Your task to perform on an android device: open app "Venmo" (install if not already installed), go to login, and select forgot password Image 0: 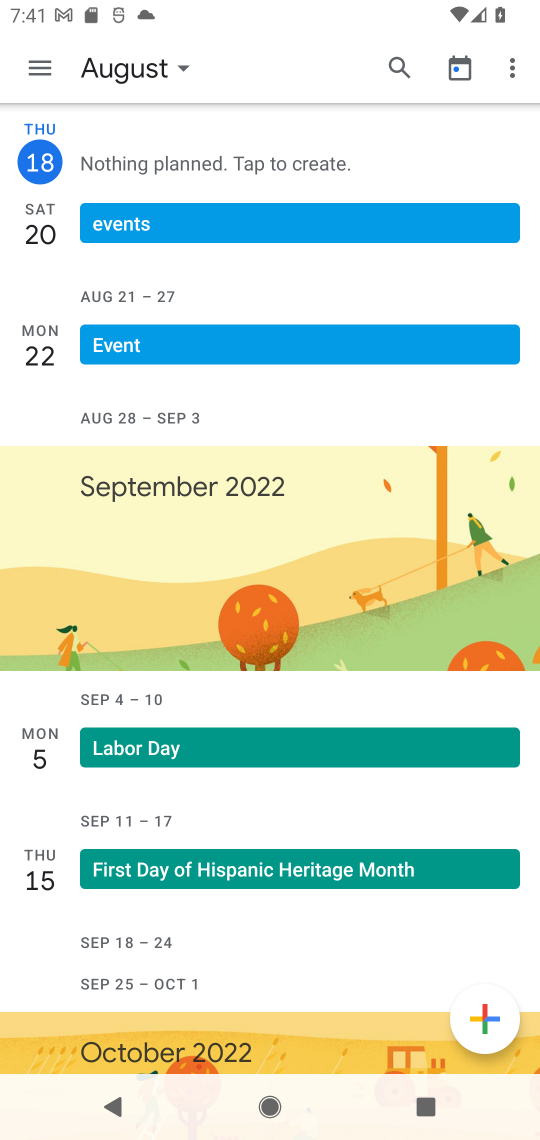
Step 0: press home button
Your task to perform on an android device: open app "Venmo" (install if not already installed), go to login, and select forgot password Image 1: 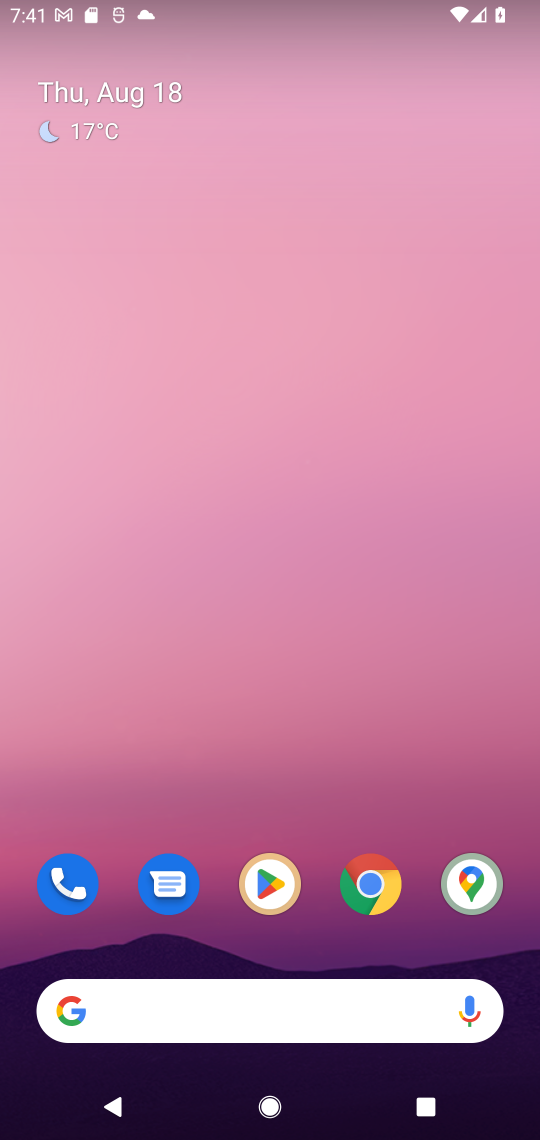
Step 1: drag from (260, 1005) to (368, 201)
Your task to perform on an android device: open app "Venmo" (install if not already installed), go to login, and select forgot password Image 2: 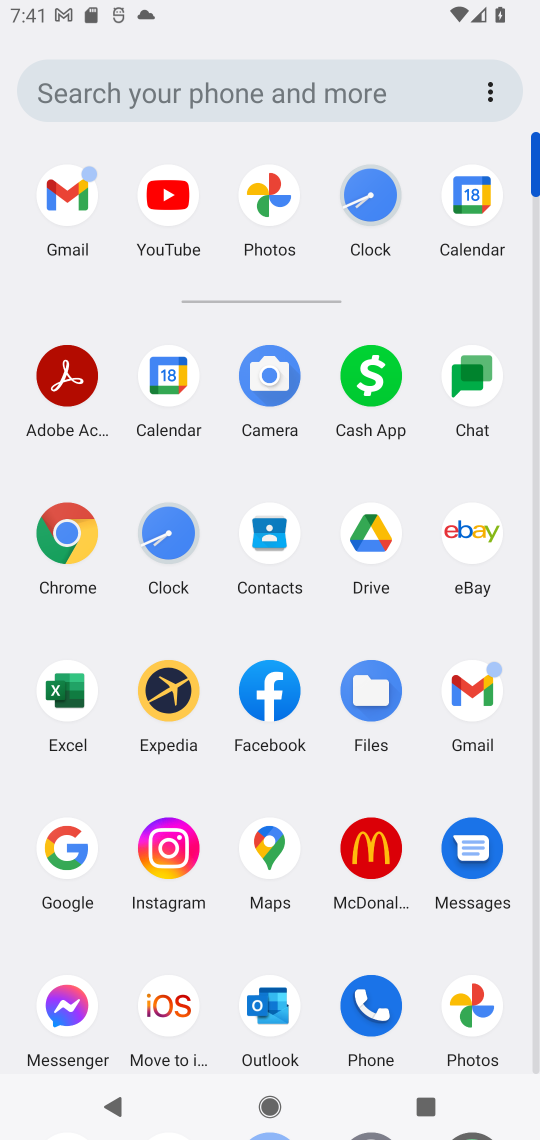
Step 2: drag from (321, 759) to (356, 389)
Your task to perform on an android device: open app "Venmo" (install if not already installed), go to login, and select forgot password Image 3: 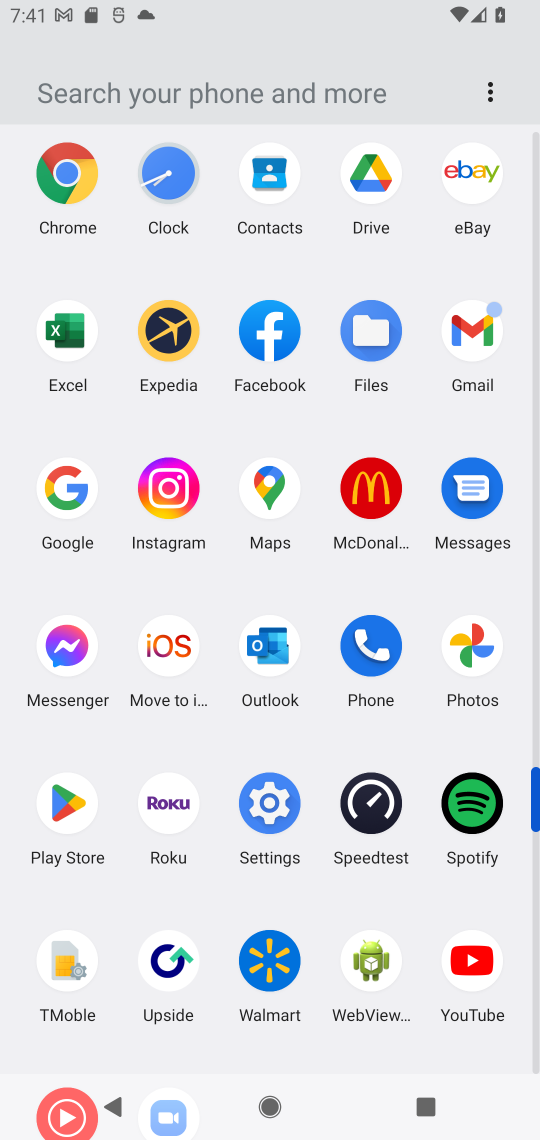
Step 3: click (66, 808)
Your task to perform on an android device: open app "Venmo" (install if not already installed), go to login, and select forgot password Image 4: 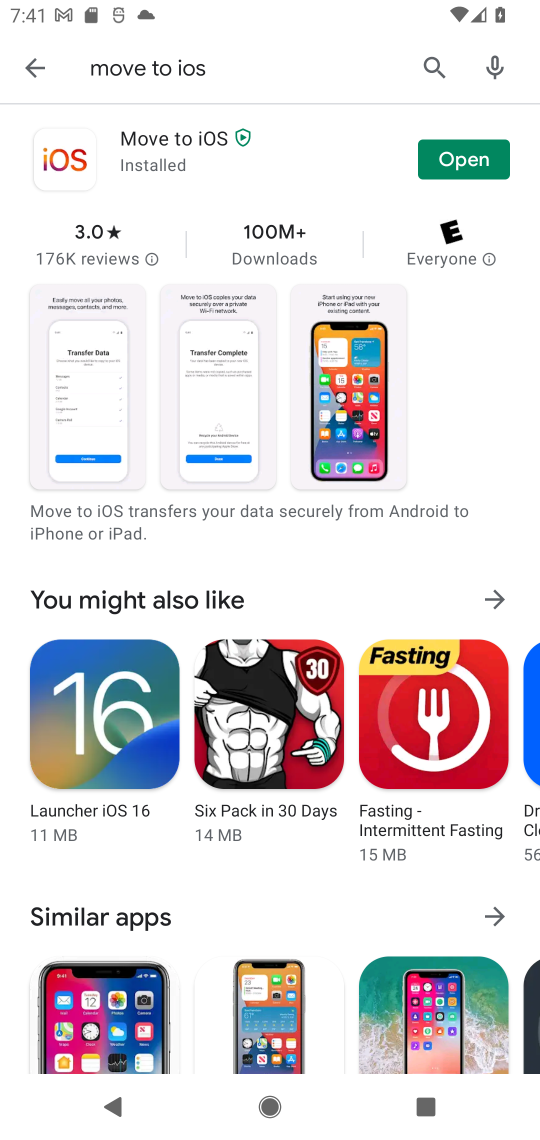
Step 4: press back button
Your task to perform on an android device: open app "Venmo" (install if not already installed), go to login, and select forgot password Image 5: 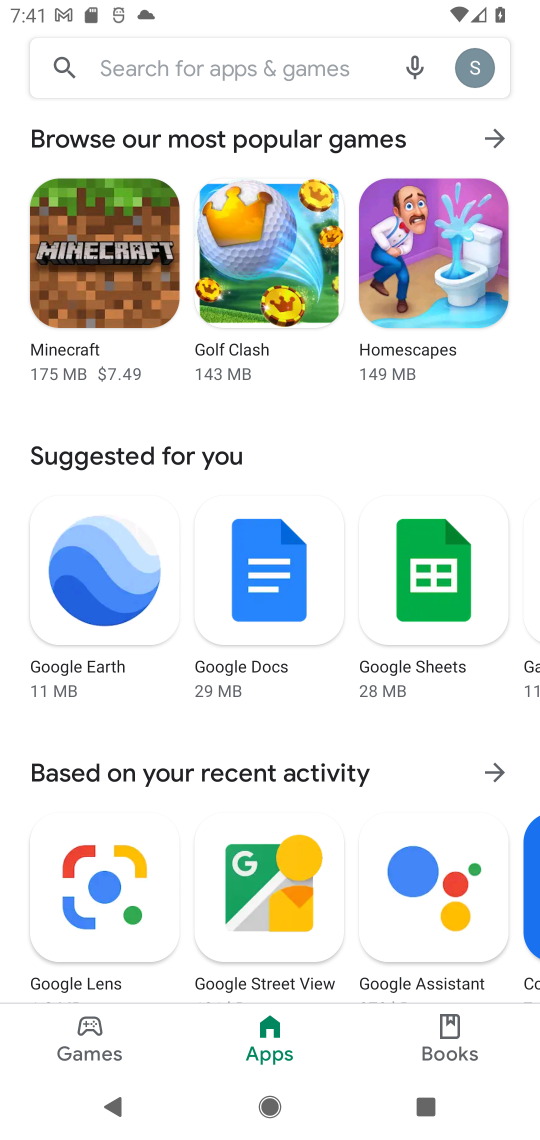
Step 5: click (349, 71)
Your task to perform on an android device: open app "Venmo" (install if not already installed), go to login, and select forgot password Image 6: 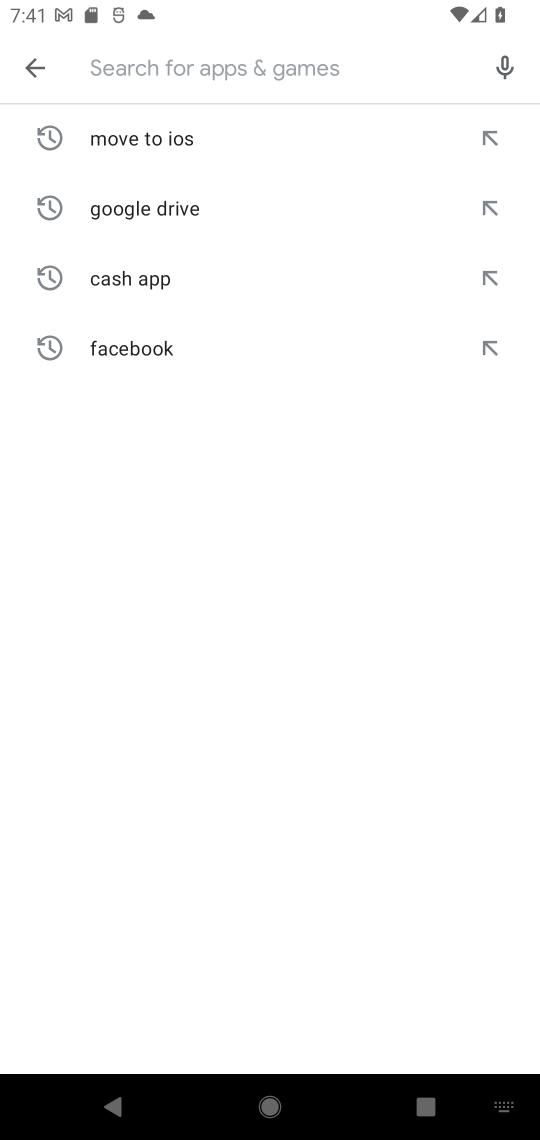
Step 6: type "Venmo"
Your task to perform on an android device: open app "Venmo" (install if not already installed), go to login, and select forgot password Image 7: 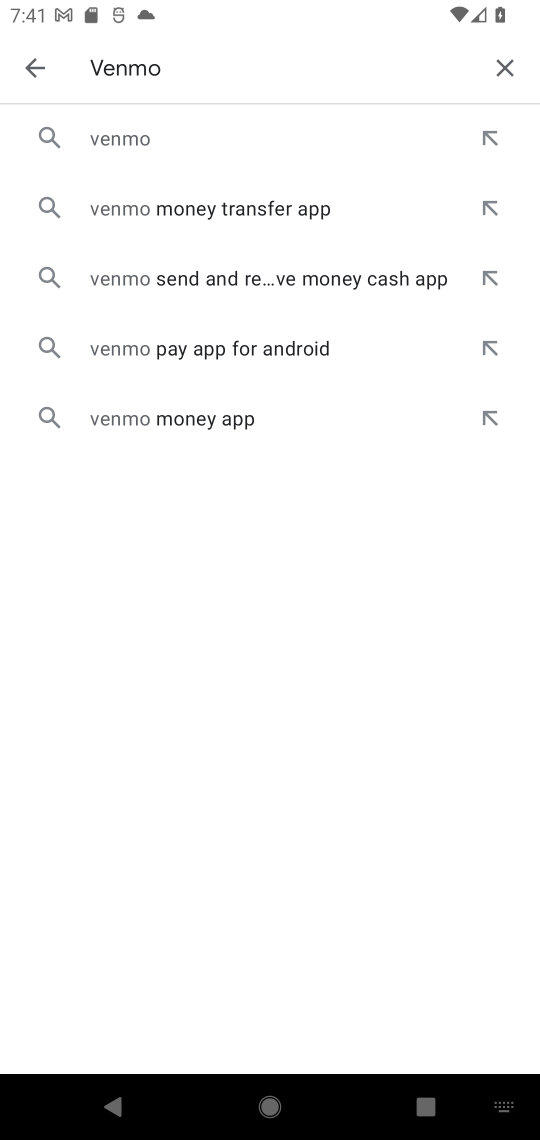
Step 7: click (131, 146)
Your task to perform on an android device: open app "Venmo" (install if not already installed), go to login, and select forgot password Image 8: 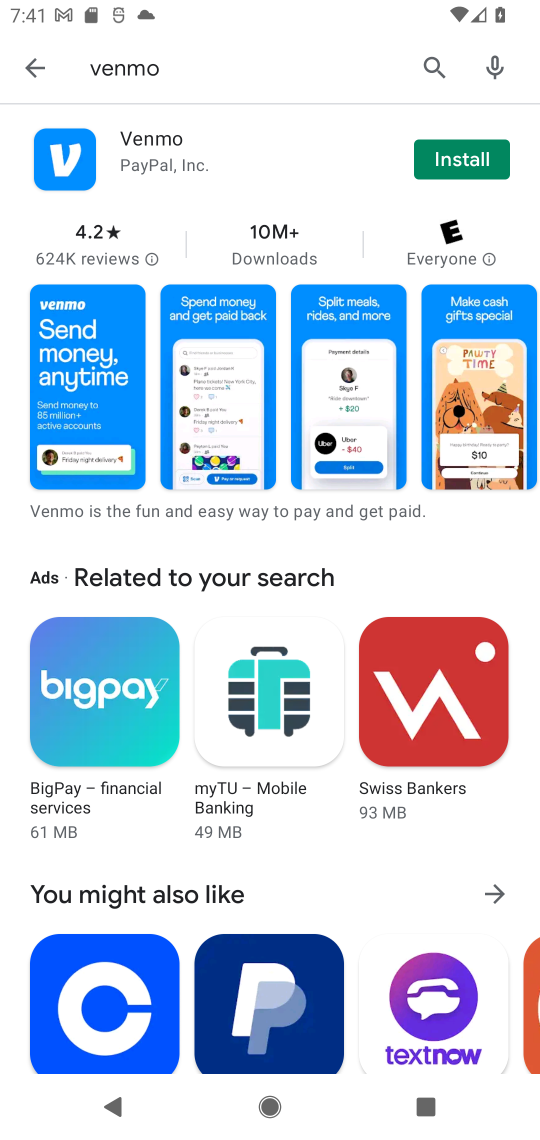
Step 8: click (456, 164)
Your task to perform on an android device: open app "Venmo" (install if not already installed), go to login, and select forgot password Image 9: 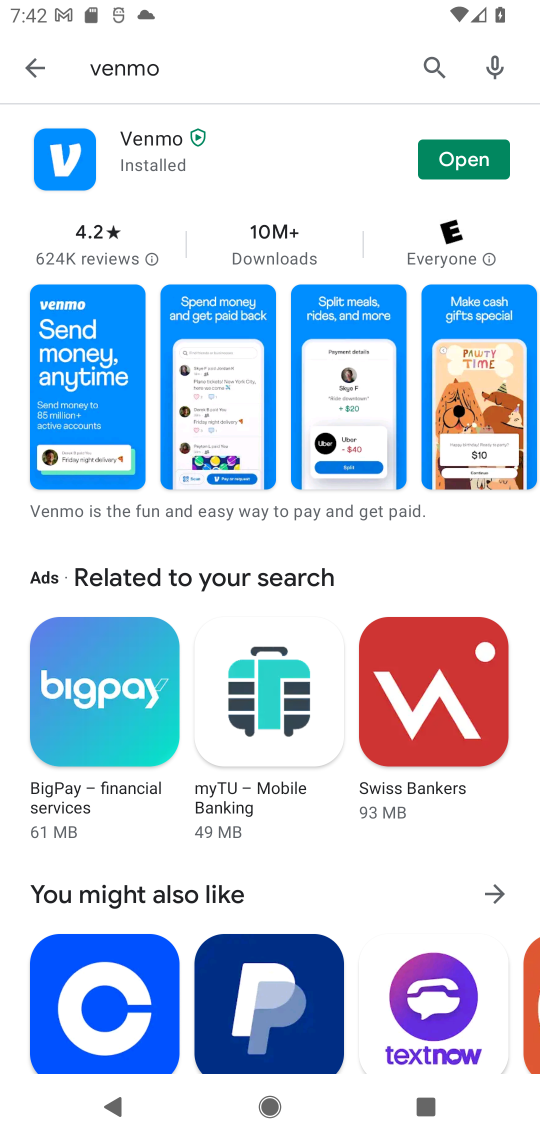
Step 9: click (475, 169)
Your task to perform on an android device: open app "Venmo" (install if not already installed), go to login, and select forgot password Image 10: 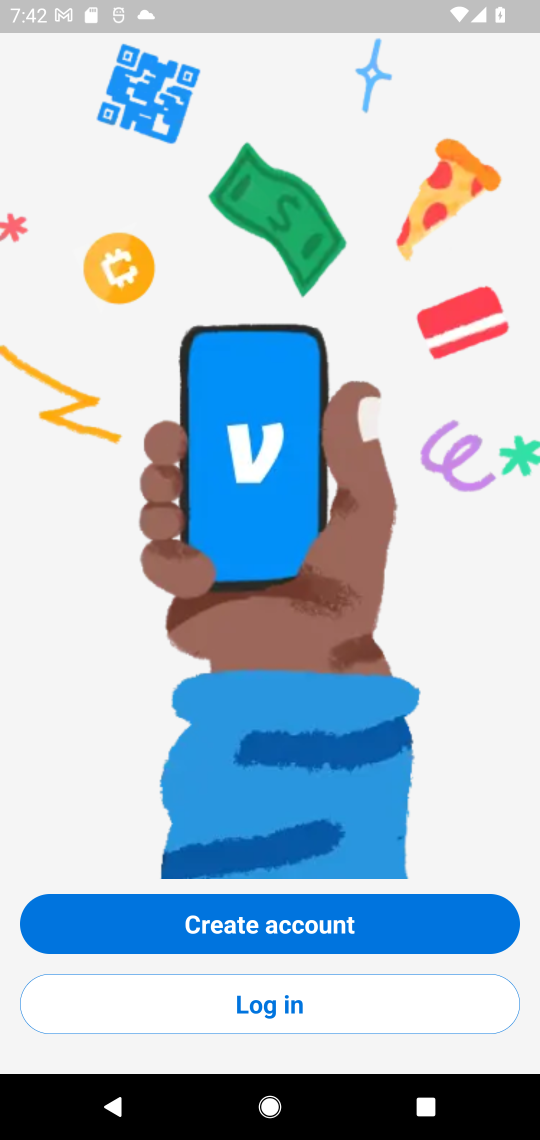
Step 10: click (293, 998)
Your task to perform on an android device: open app "Venmo" (install if not already installed), go to login, and select forgot password Image 11: 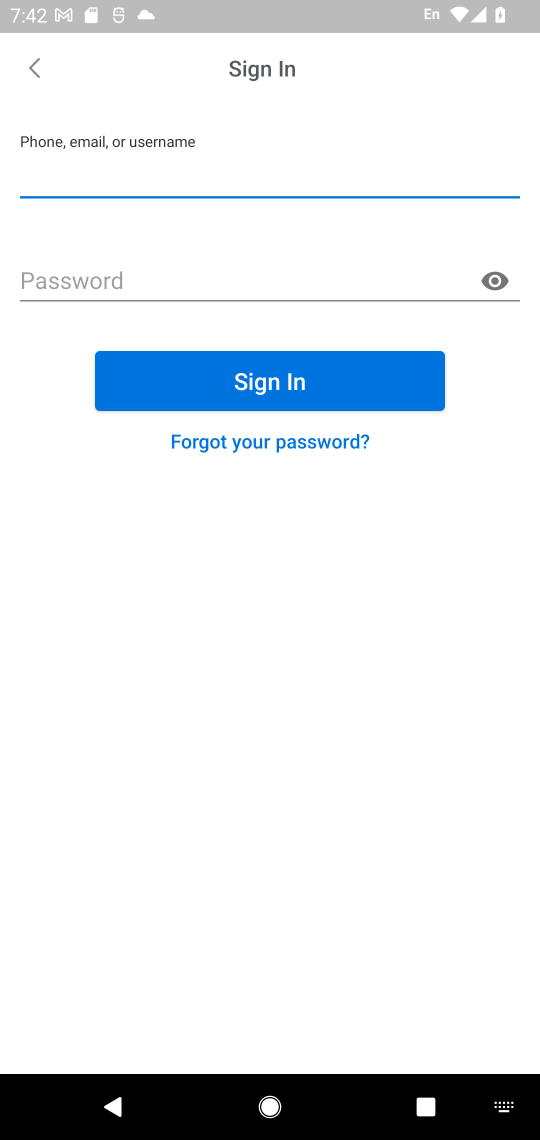
Step 11: click (321, 437)
Your task to perform on an android device: open app "Venmo" (install if not already installed), go to login, and select forgot password Image 12: 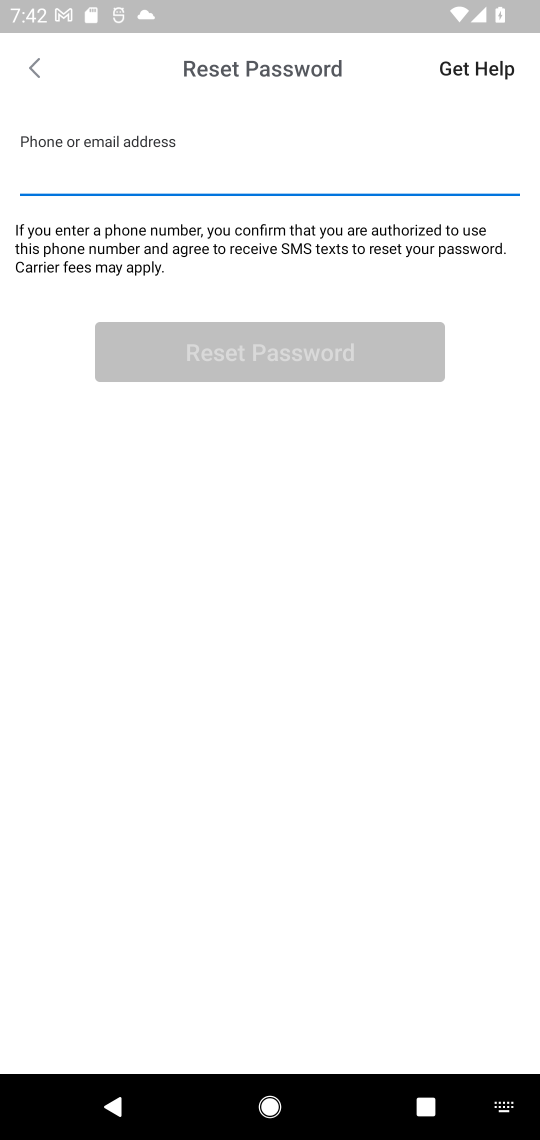
Step 12: task complete